Your task to perform on an android device: turn on translation in the chrome app Image 0: 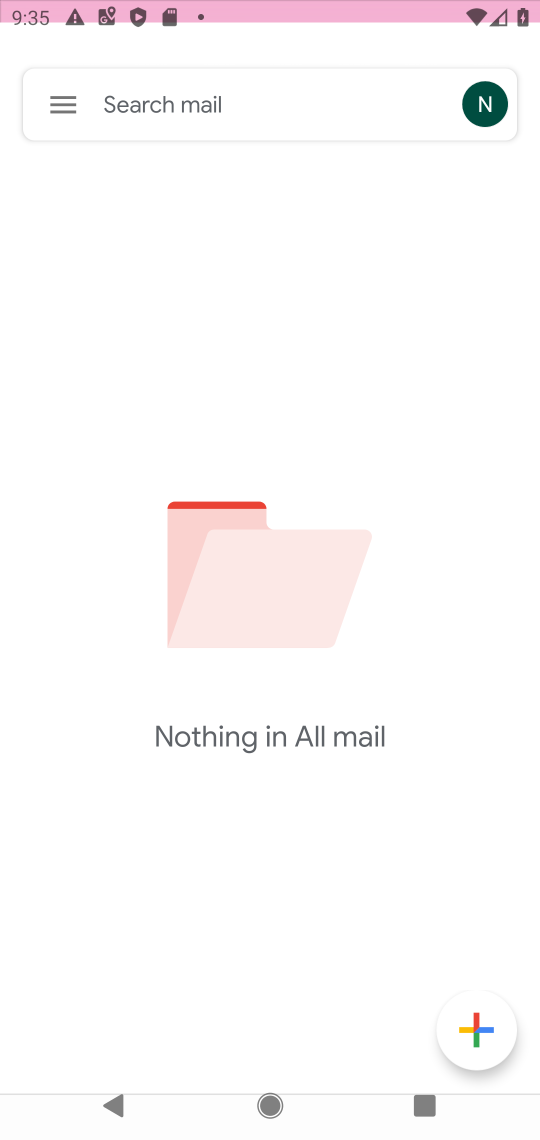
Step 0: press home button
Your task to perform on an android device: turn on translation in the chrome app Image 1: 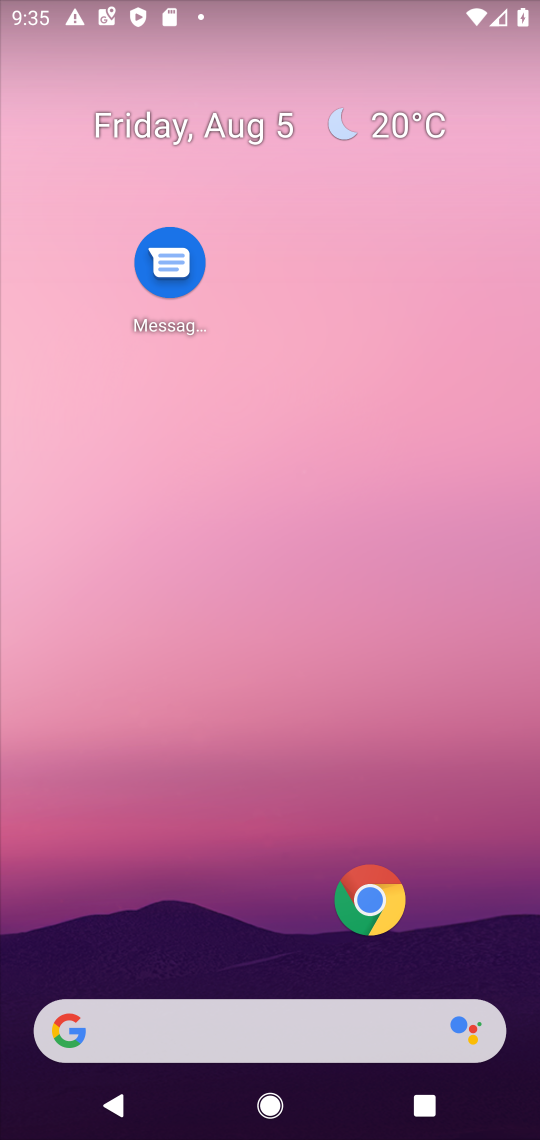
Step 1: drag from (241, 898) to (227, 120)
Your task to perform on an android device: turn on translation in the chrome app Image 2: 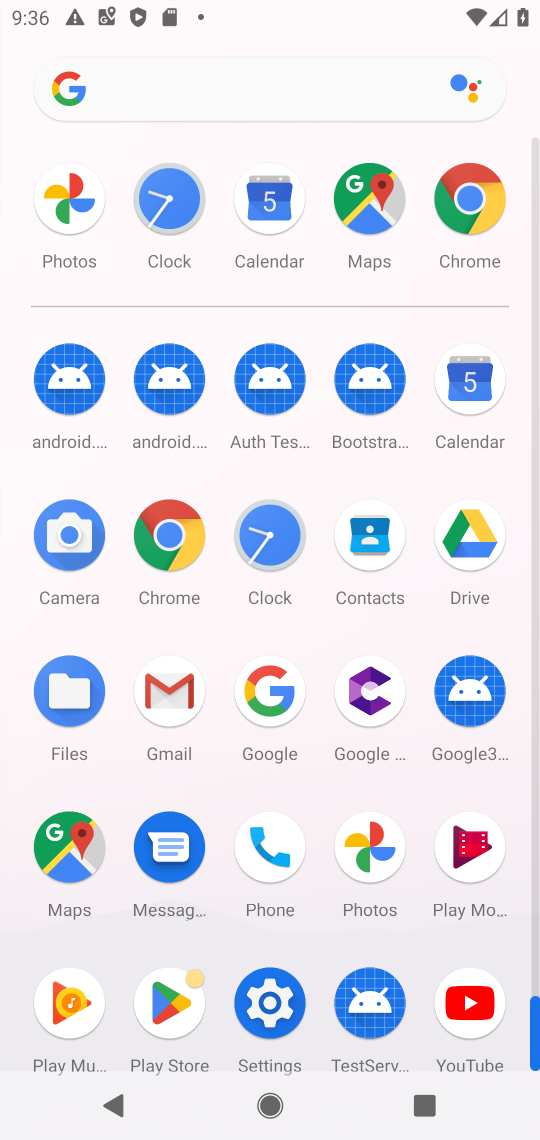
Step 2: click (166, 539)
Your task to perform on an android device: turn on translation in the chrome app Image 3: 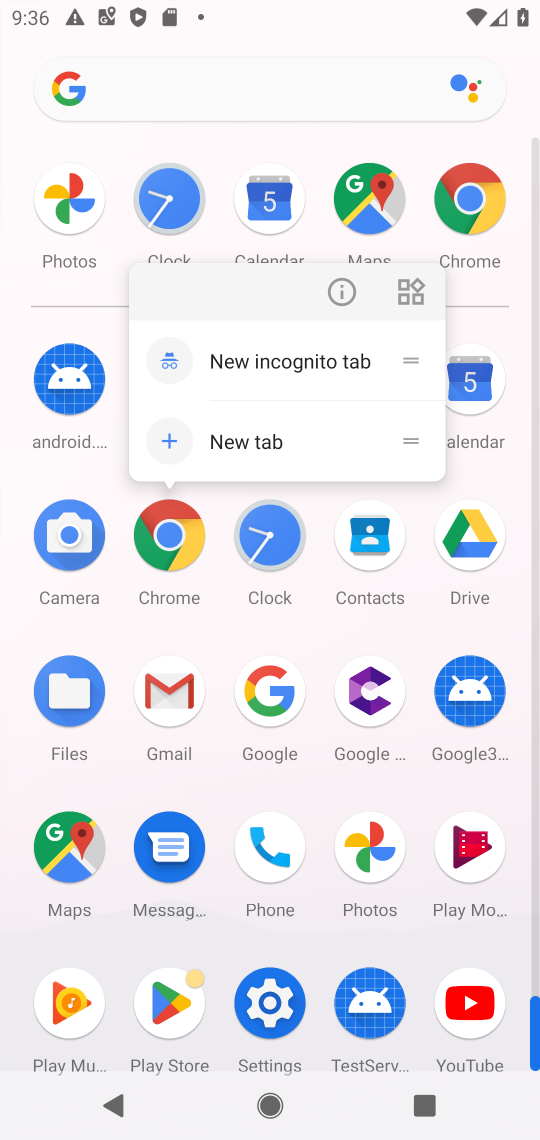
Step 3: click (131, 543)
Your task to perform on an android device: turn on translation in the chrome app Image 4: 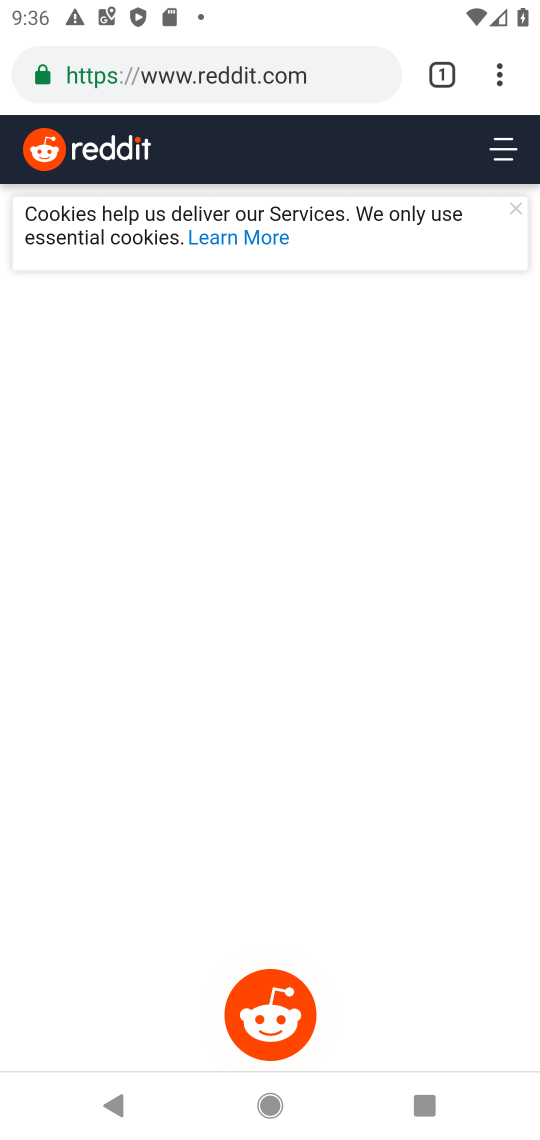
Step 4: drag from (505, 82) to (213, 899)
Your task to perform on an android device: turn on translation in the chrome app Image 5: 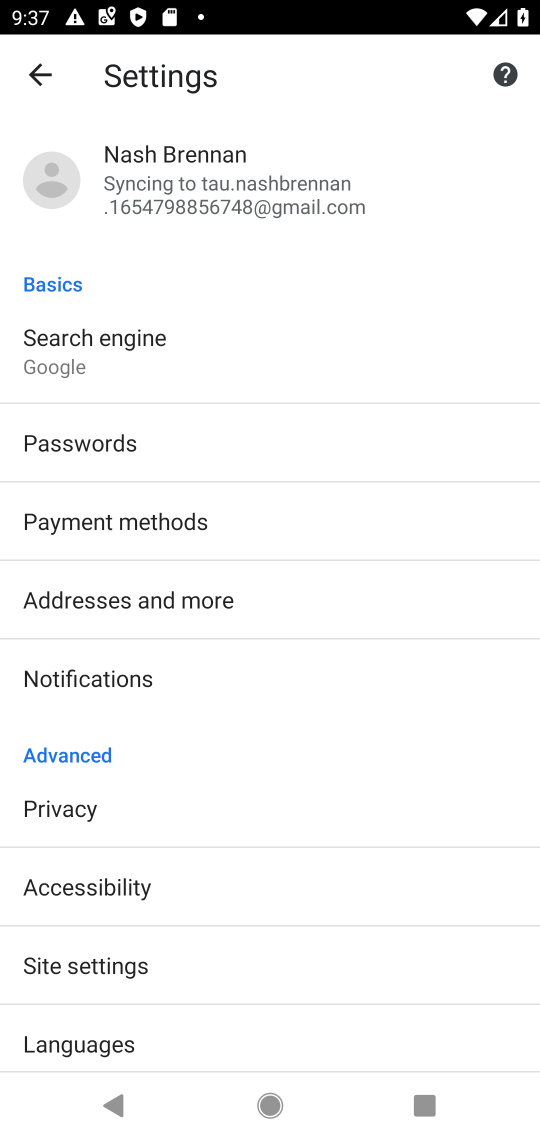
Step 5: click (120, 1033)
Your task to perform on an android device: turn on translation in the chrome app Image 6: 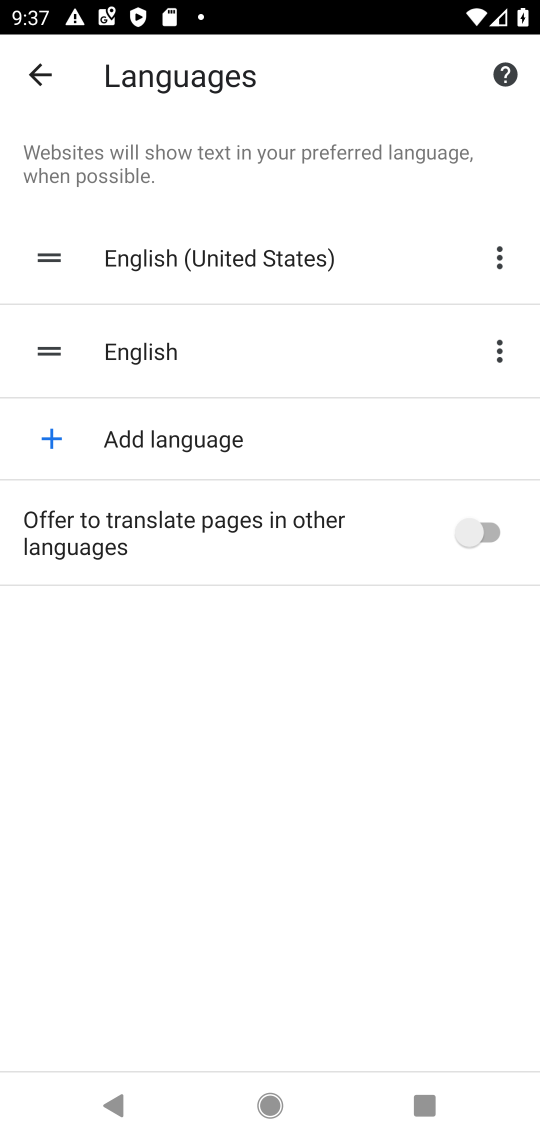
Step 6: click (262, 532)
Your task to perform on an android device: turn on translation in the chrome app Image 7: 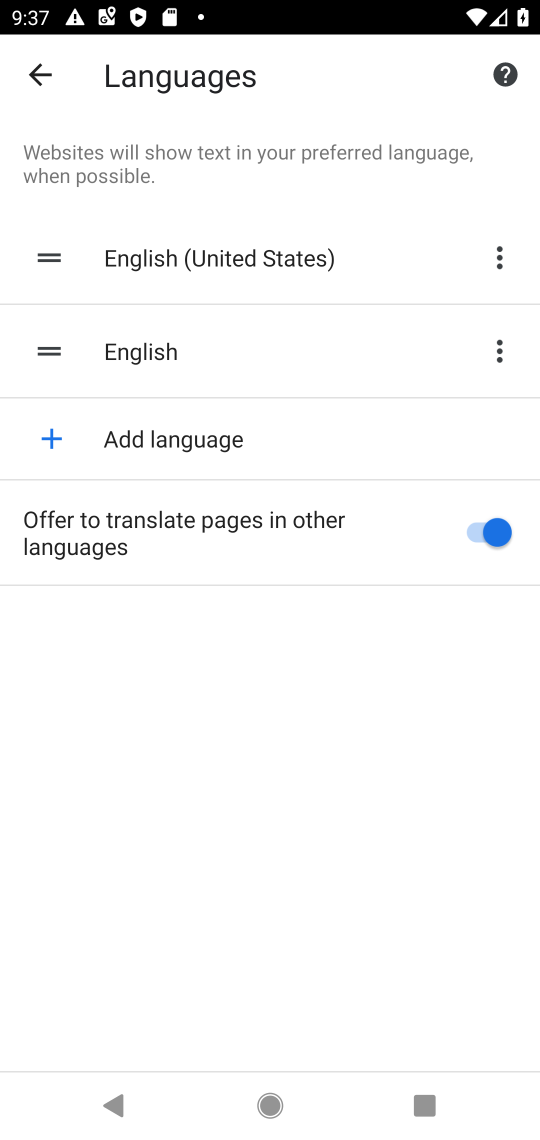
Step 7: task complete